Your task to perform on an android device: Open maps Image 0: 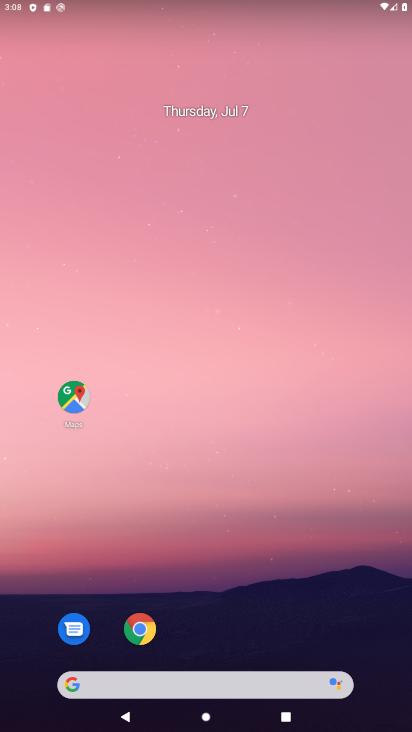
Step 0: click (76, 397)
Your task to perform on an android device: Open maps Image 1: 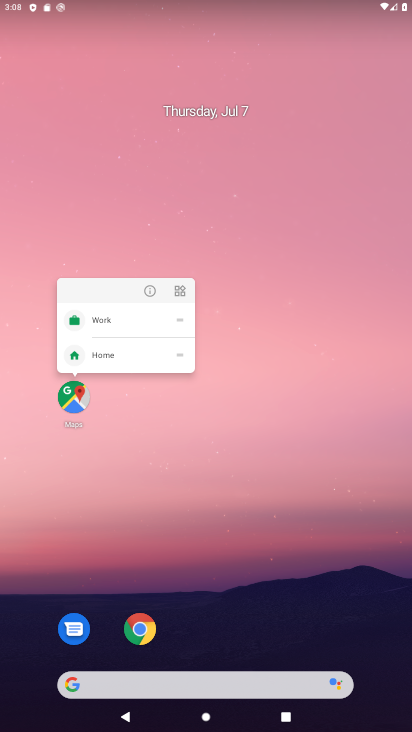
Step 1: click (73, 401)
Your task to perform on an android device: Open maps Image 2: 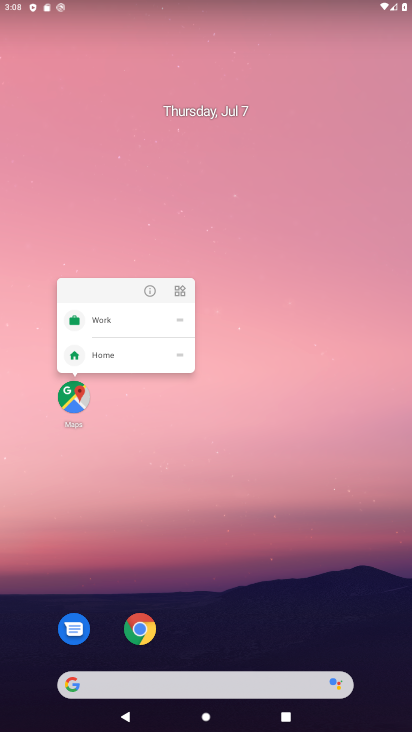
Step 2: click (73, 392)
Your task to perform on an android device: Open maps Image 3: 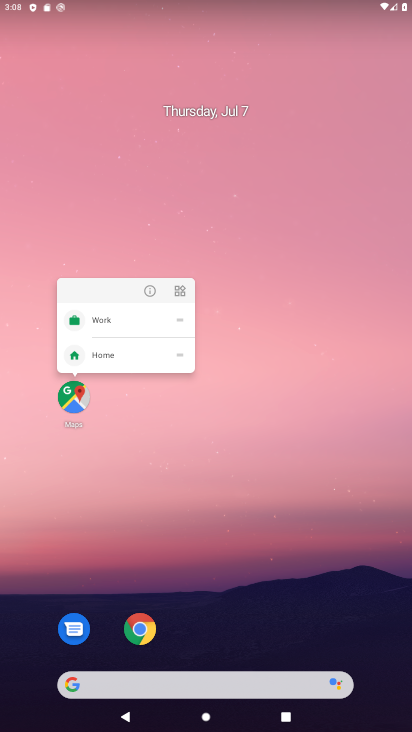
Step 3: click (82, 395)
Your task to perform on an android device: Open maps Image 4: 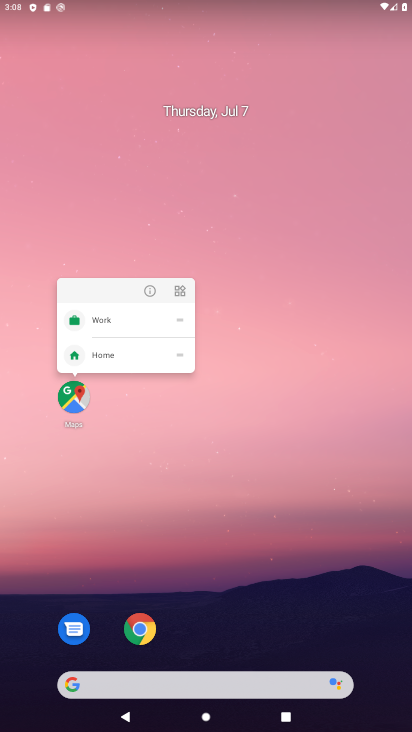
Step 4: click (73, 398)
Your task to perform on an android device: Open maps Image 5: 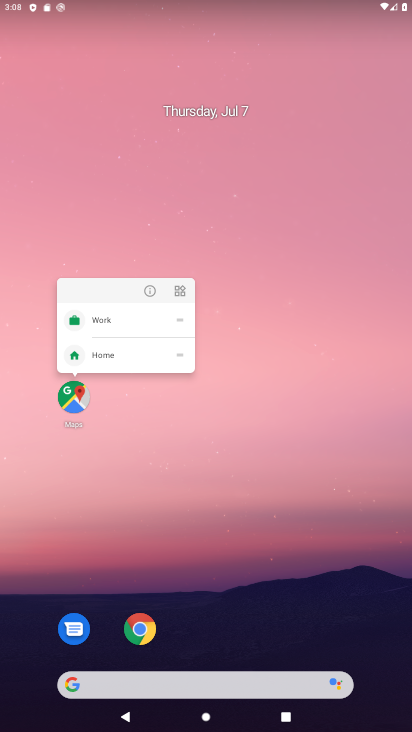
Step 5: click (83, 402)
Your task to perform on an android device: Open maps Image 6: 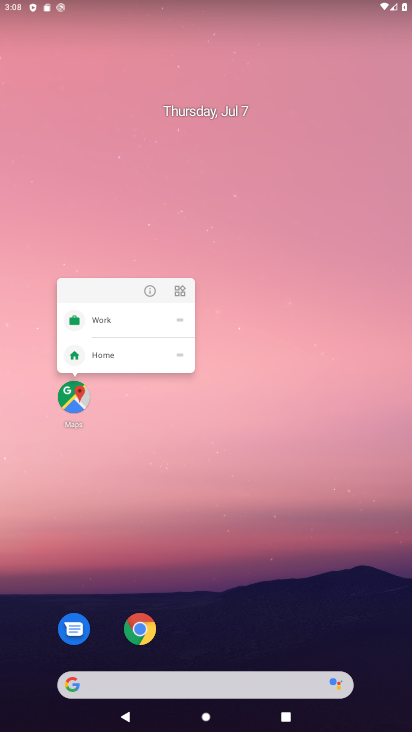
Step 6: click (83, 402)
Your task to perform on an android device: Open maps Image 7: 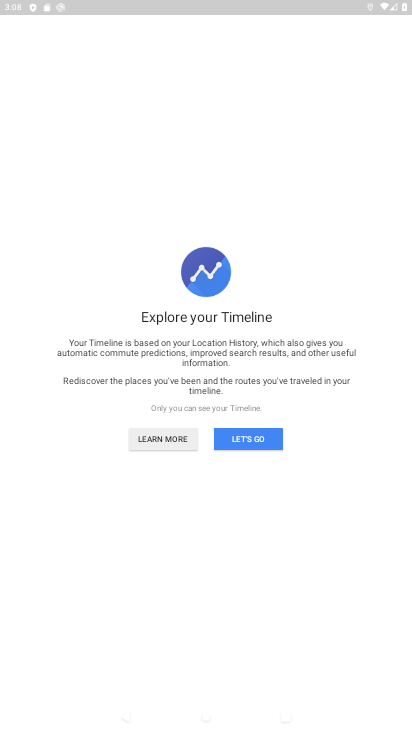
Step 7: task complete